Your task to perform on an android device: toggle wifi Image 0: 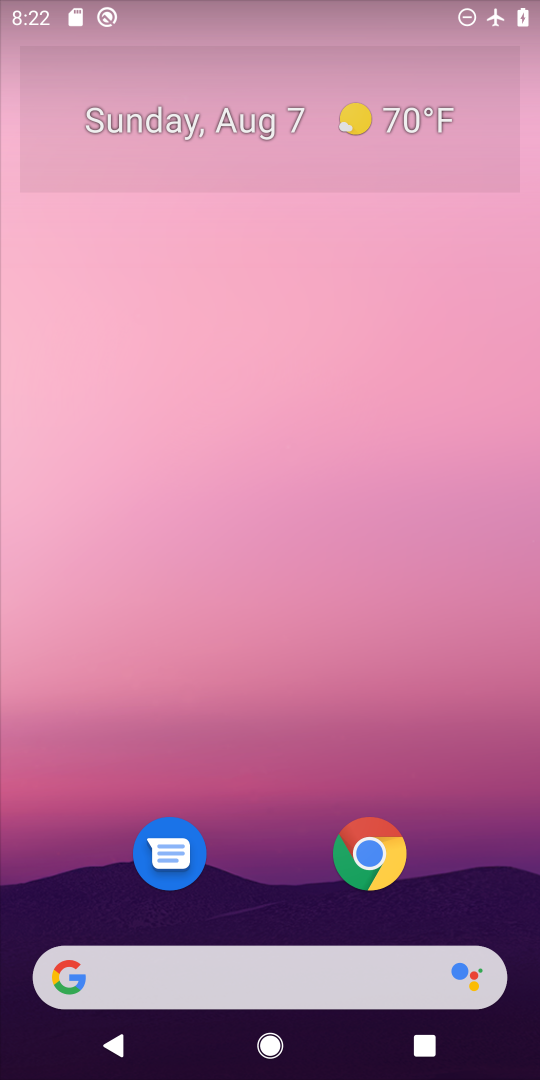
Step 0: drag from (233, 901) to (276, 215)
Your task to perform on an android device: toggle wifi Image 1: 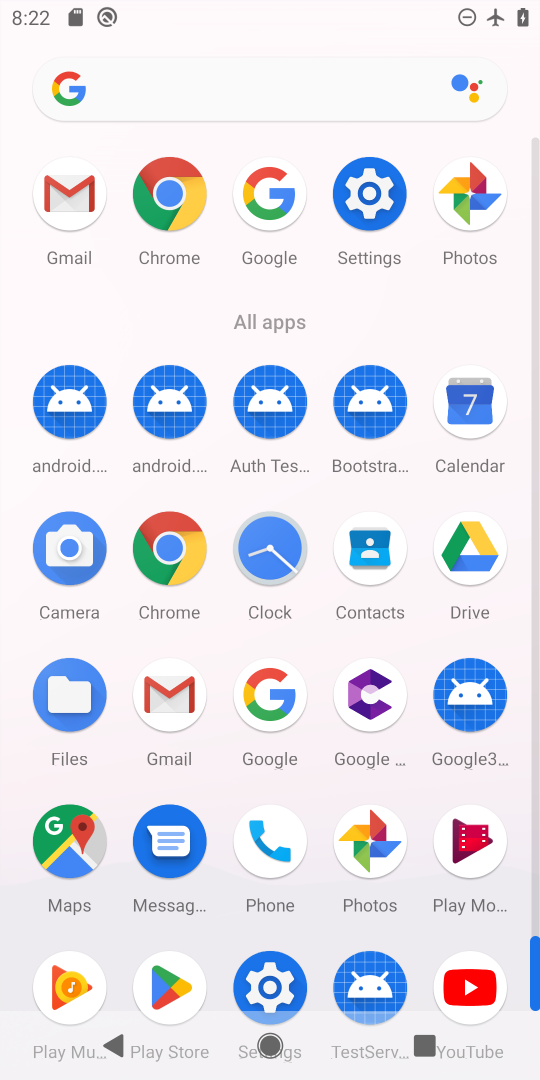
Step 1: click (372, 209)
Your task to perform on an android device: toggle wifi Image 2: 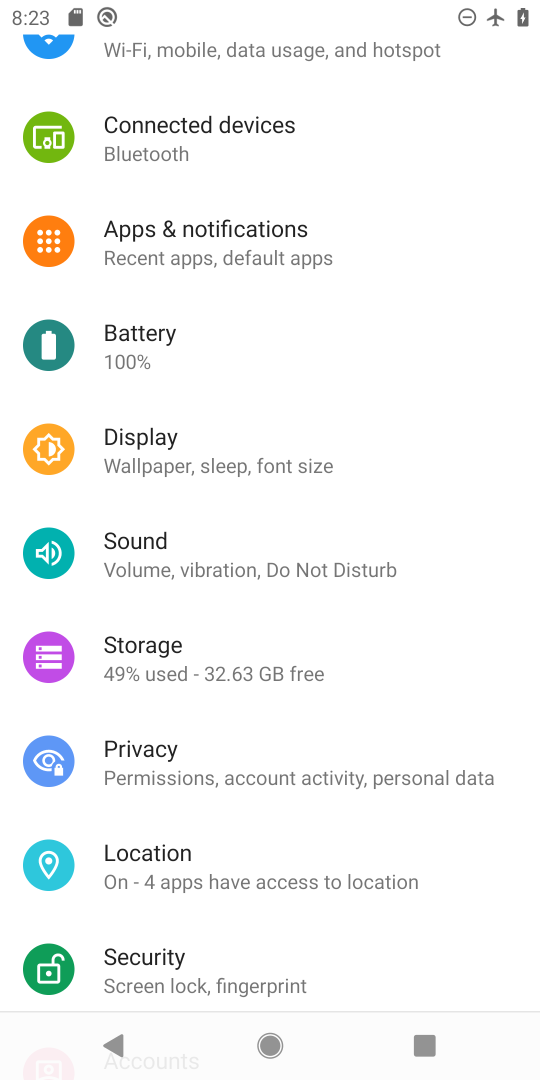
Step 2: drag from (177, 280) to (213, 1032)
Your task to perform on an android device: toggle wifi Image 3: 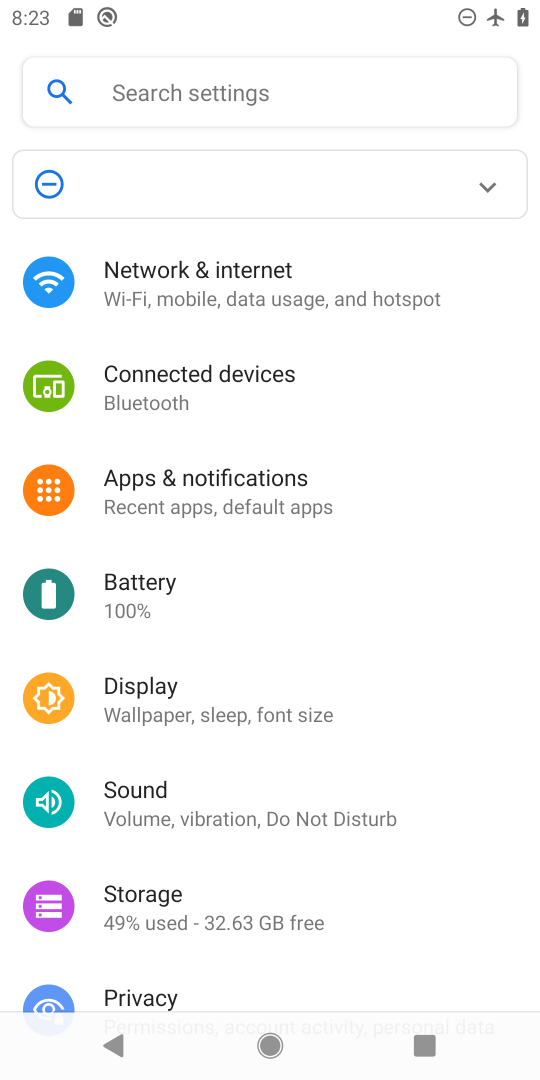
Step 3: click (253, 289)
Your task to perform on an android device: toggle wifi Image 4: 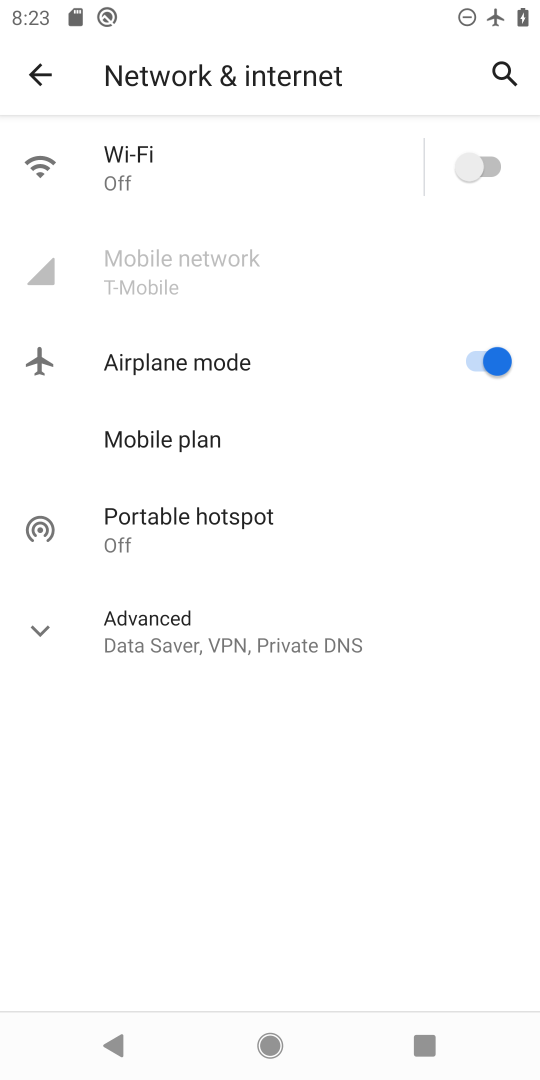
Step 4: click (501, 171)
Your task to perform on an android device: toggle wifi Image 5: 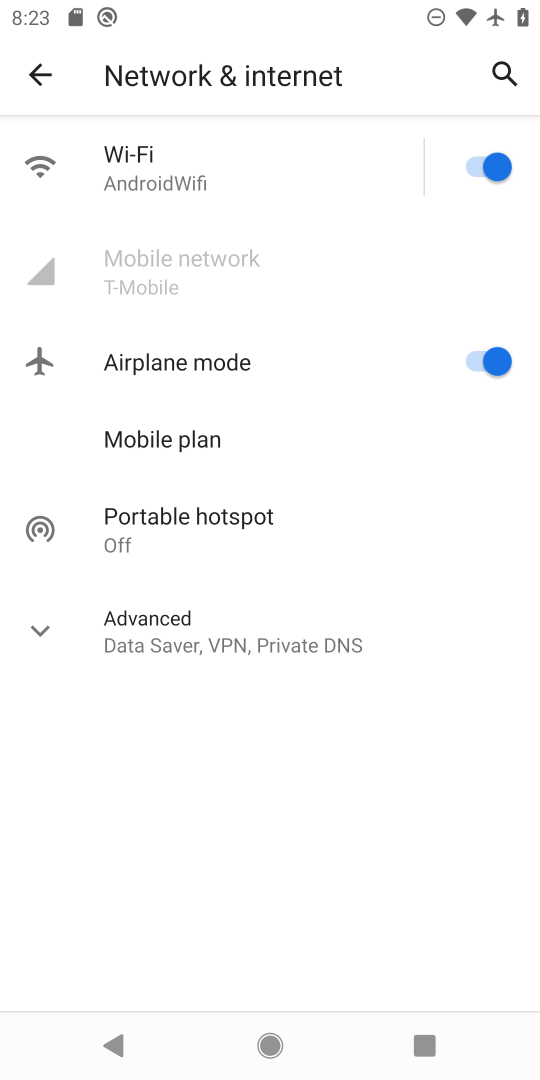
Step 5: task complete